Your task to perform on an android device: View the shopping cart on walmart.com. Search for acer predator on walmart.com, select the first entry, and add it to the cart. Image 0: 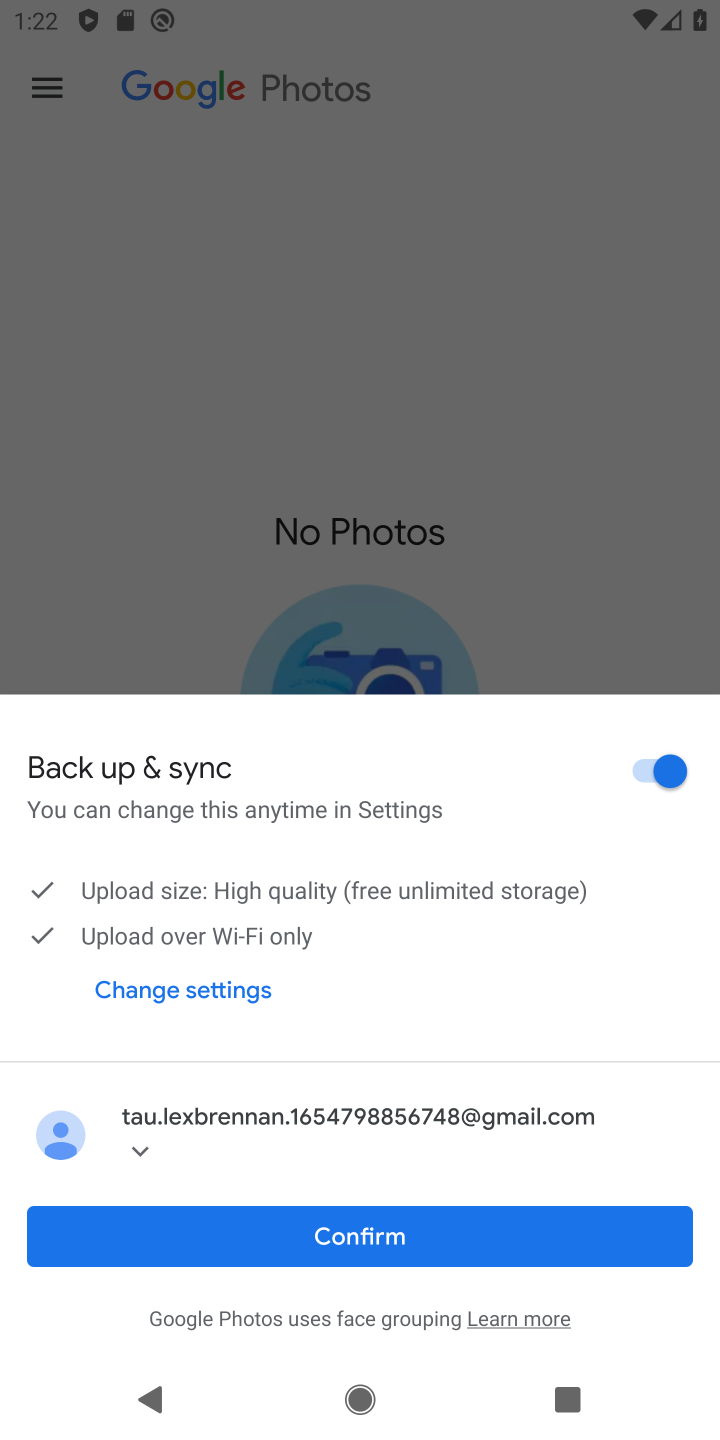
Step 0: press home button
Your task to perform on an android device: View the shopping cart on walmart.com. Search for acer predator on walmart.com, select the first entry, and add it to the cart. Image 1: 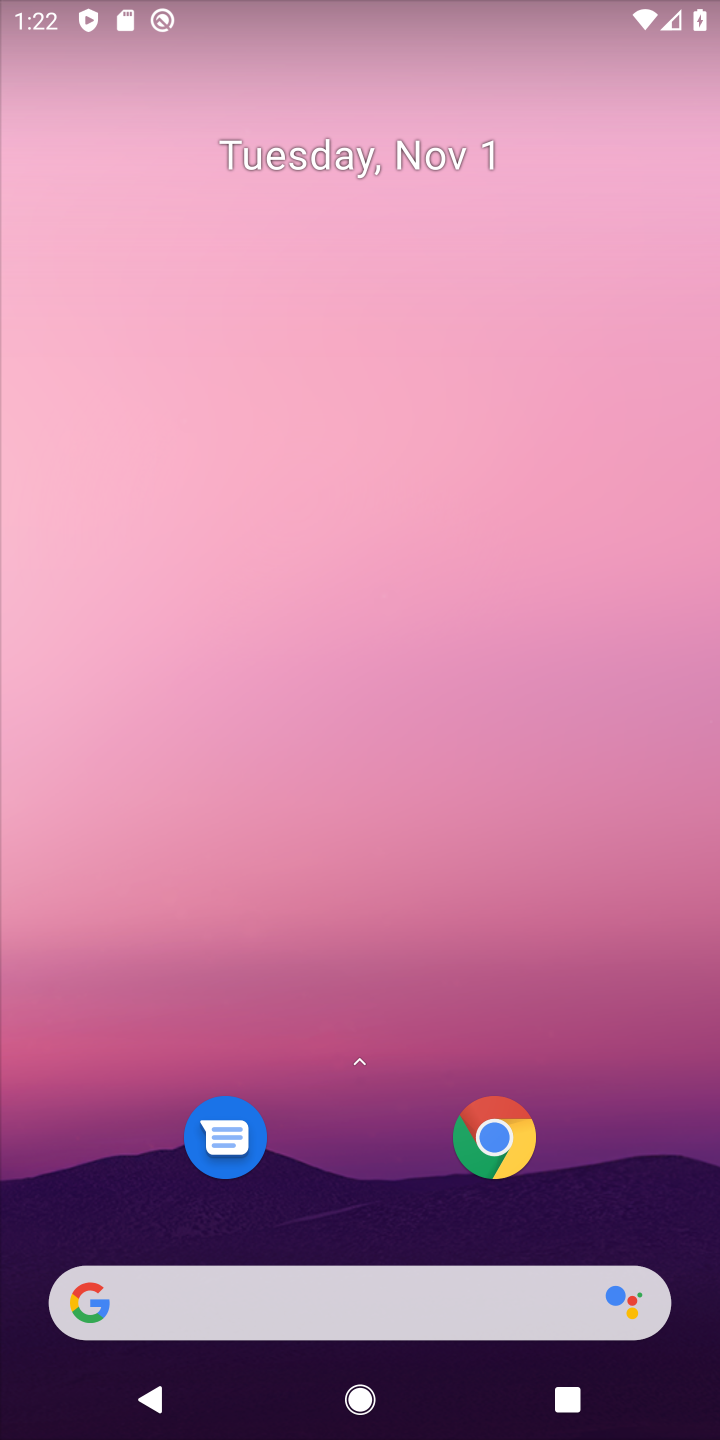
Step 1: click (354, 1293)
Your task to perform on an android device: View the shopping cart on walmart.com. Search for acer predator on walmart.com, select the first entry, and add it to the cart. Image 2: 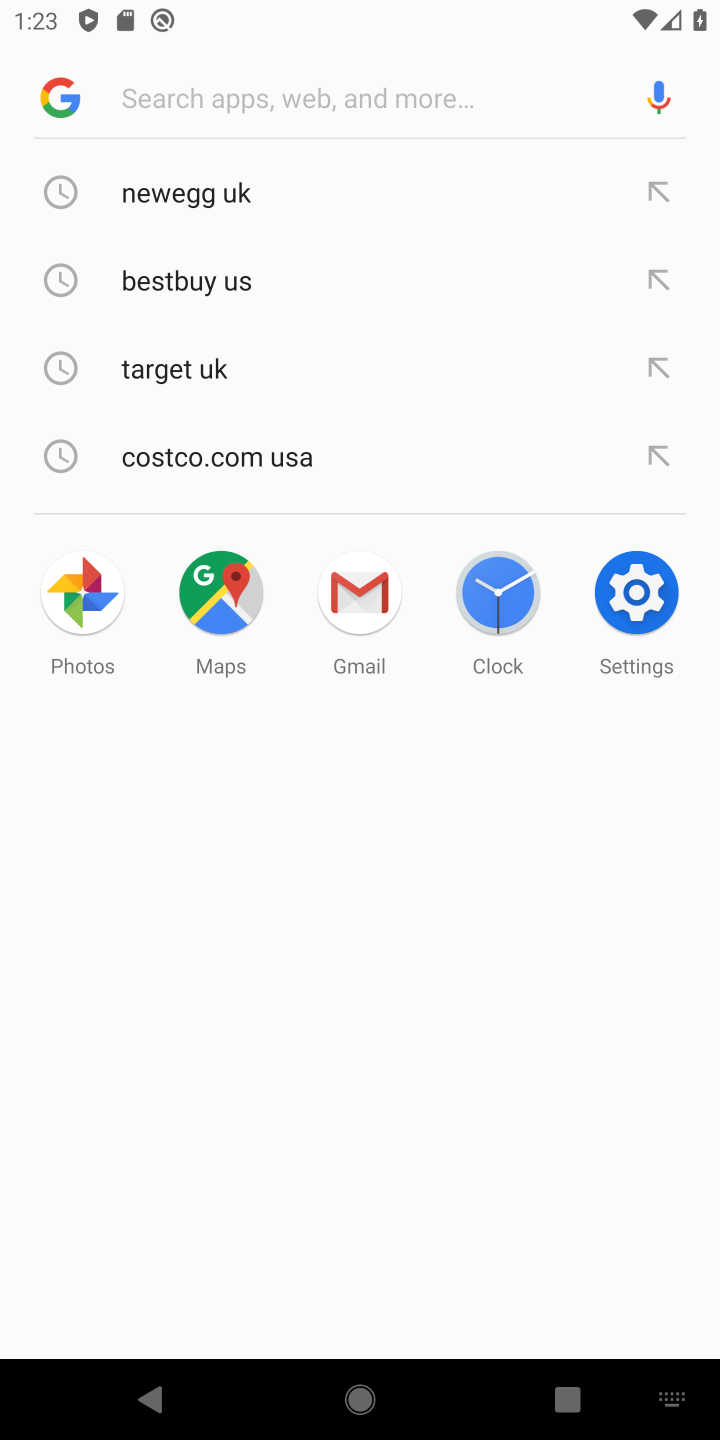
Step 2: type "walmart"
Your task to perform on an android device: View the shopping cart on walmart.com. Search for acer predator on walmart.com, select the first entry, and add it to the cart. Image 3: 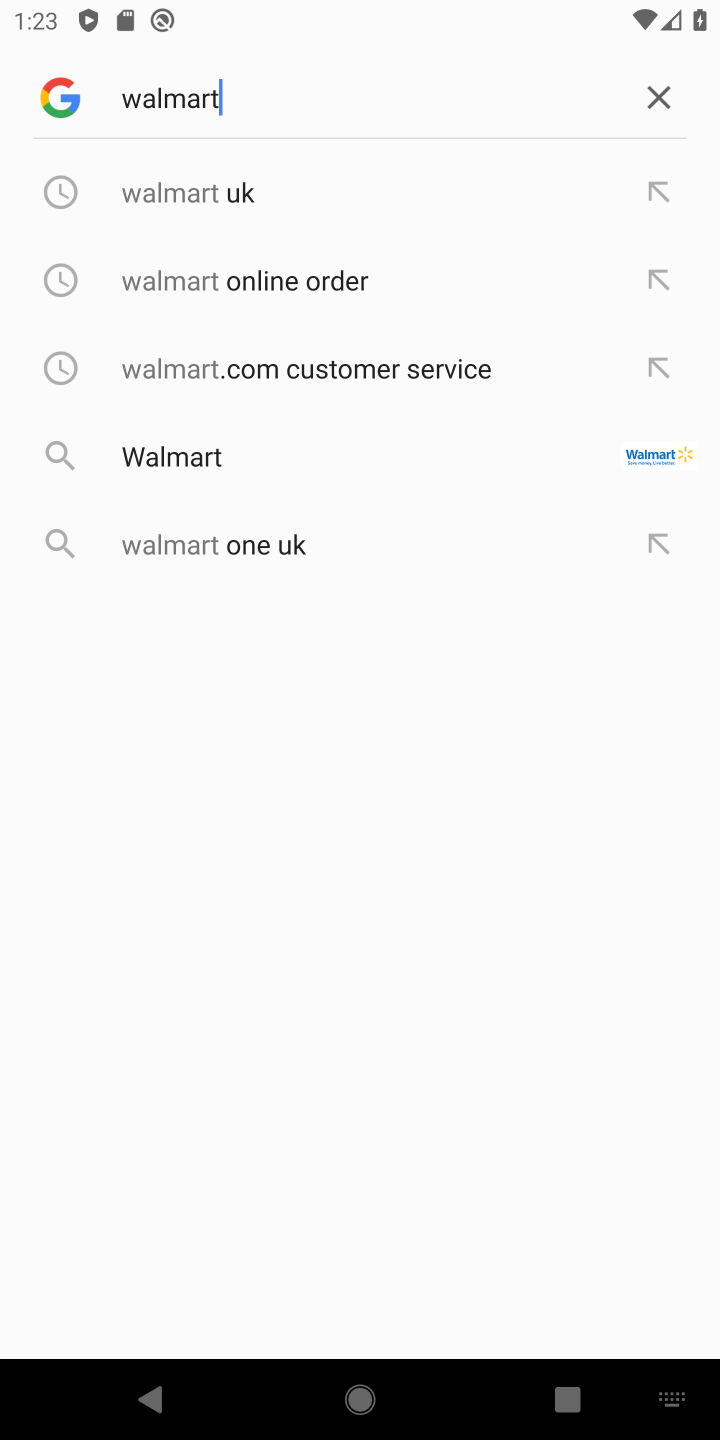
Step 3: click (345, 172)
Your task to perform on an android device: View the shopping cart on walmart.com. Search for acer predator on walmart.com, select the first entry, and add it to the cart. Image 4: 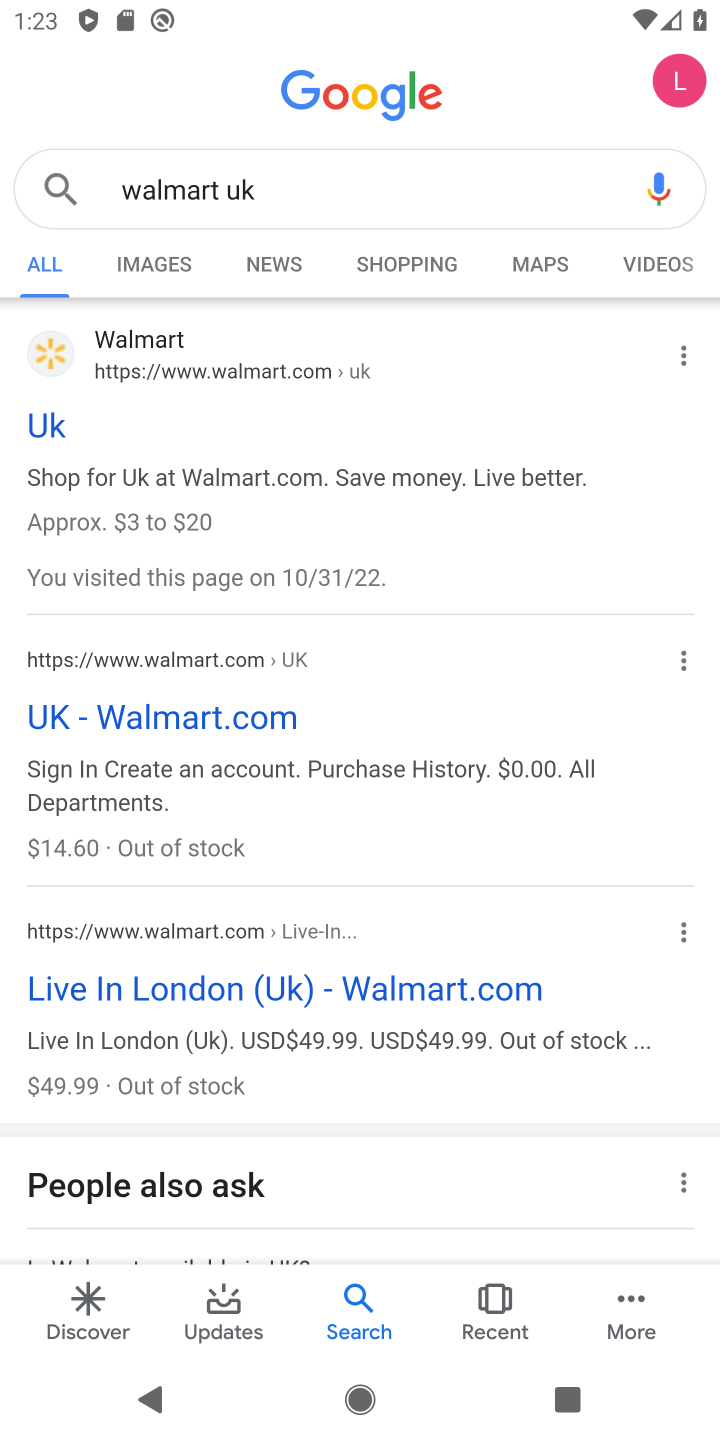
Step 4: click (72, 441)
Your task to perform on an android device: View the shopping cart on walmart.com. Search for acer predator on walmart.com, select the first entry, and add it to the cart. Image 5: 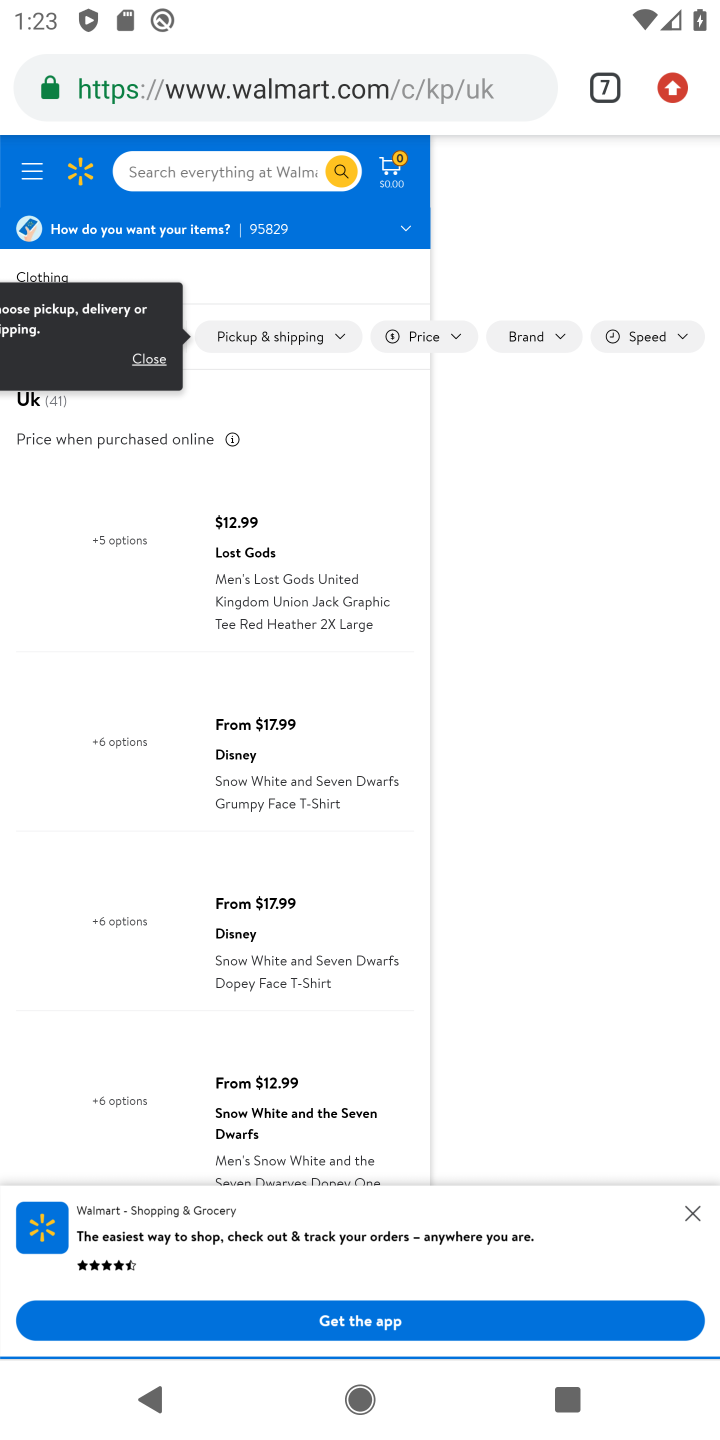
Step 5: click (259, 177)
Your task to perform on an android device: View the shopping cart on walmart.com. Search for acer predator on walmart.com, select the first entry, and add it to the cart. Image 6: 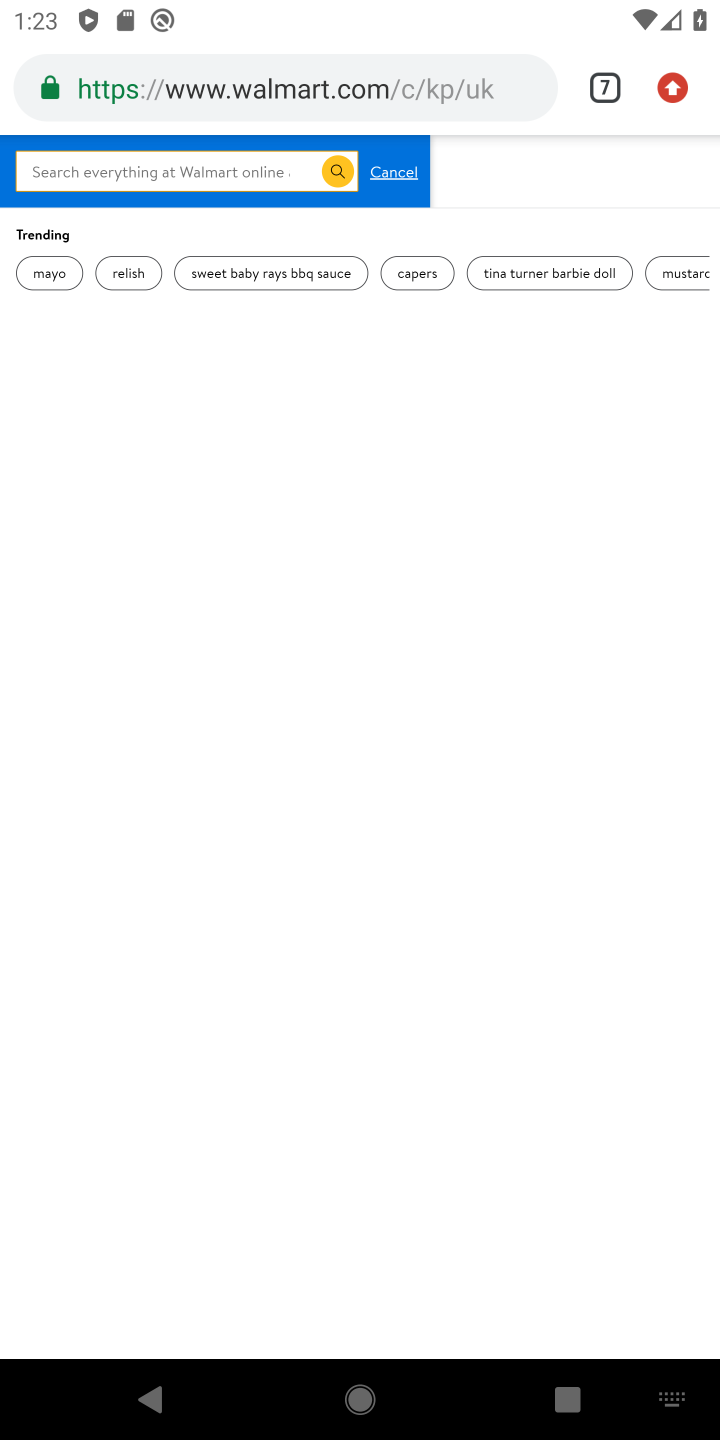
Step 6: type "acer predator"
Your task to perform on an android device: View the shopping cart on walmart.com. Search for acer predator on walmart.com, select the first entry, and add it to the cart. Image 7: 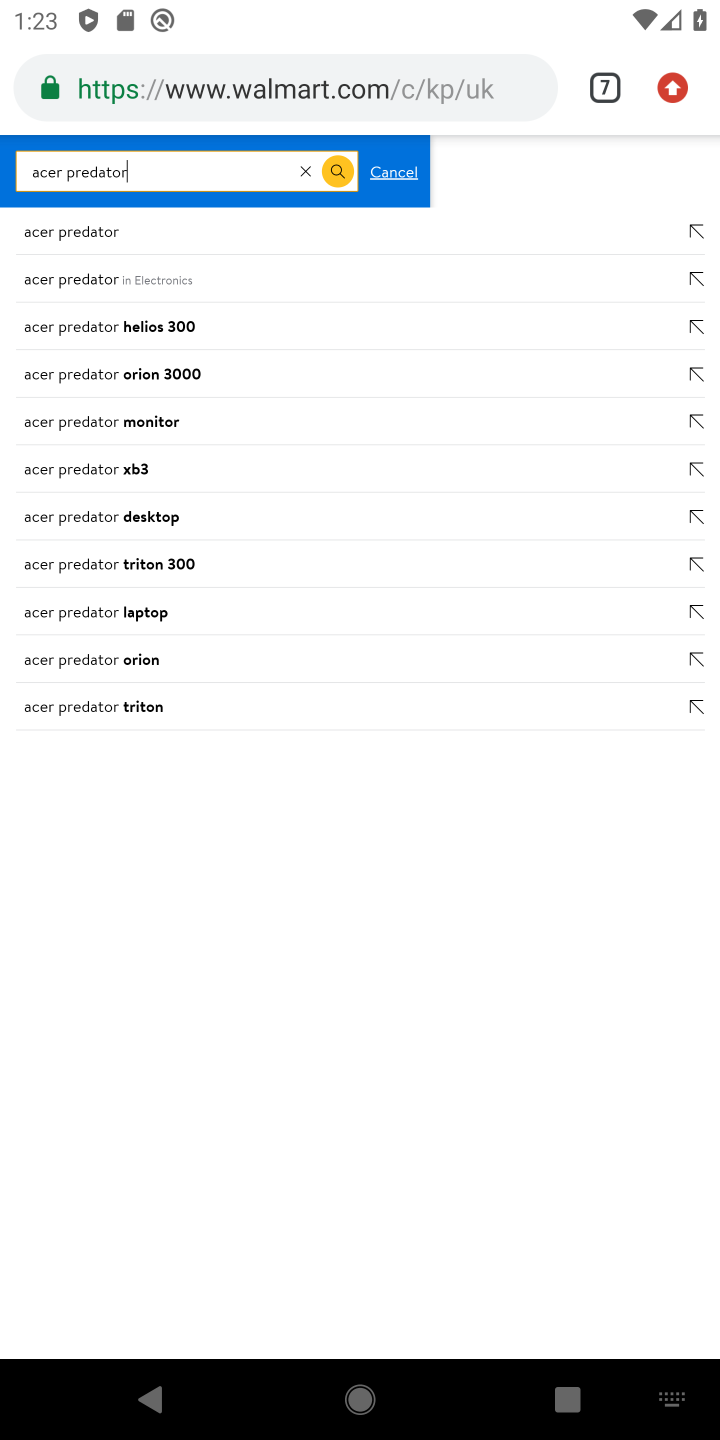
Step 7: click (331, 213)
Your task to perform on an android device: View the shopping cart on walmart.com. Search for acer predator on walmart.com, select the first entry, and add it to the cart. Image 8: 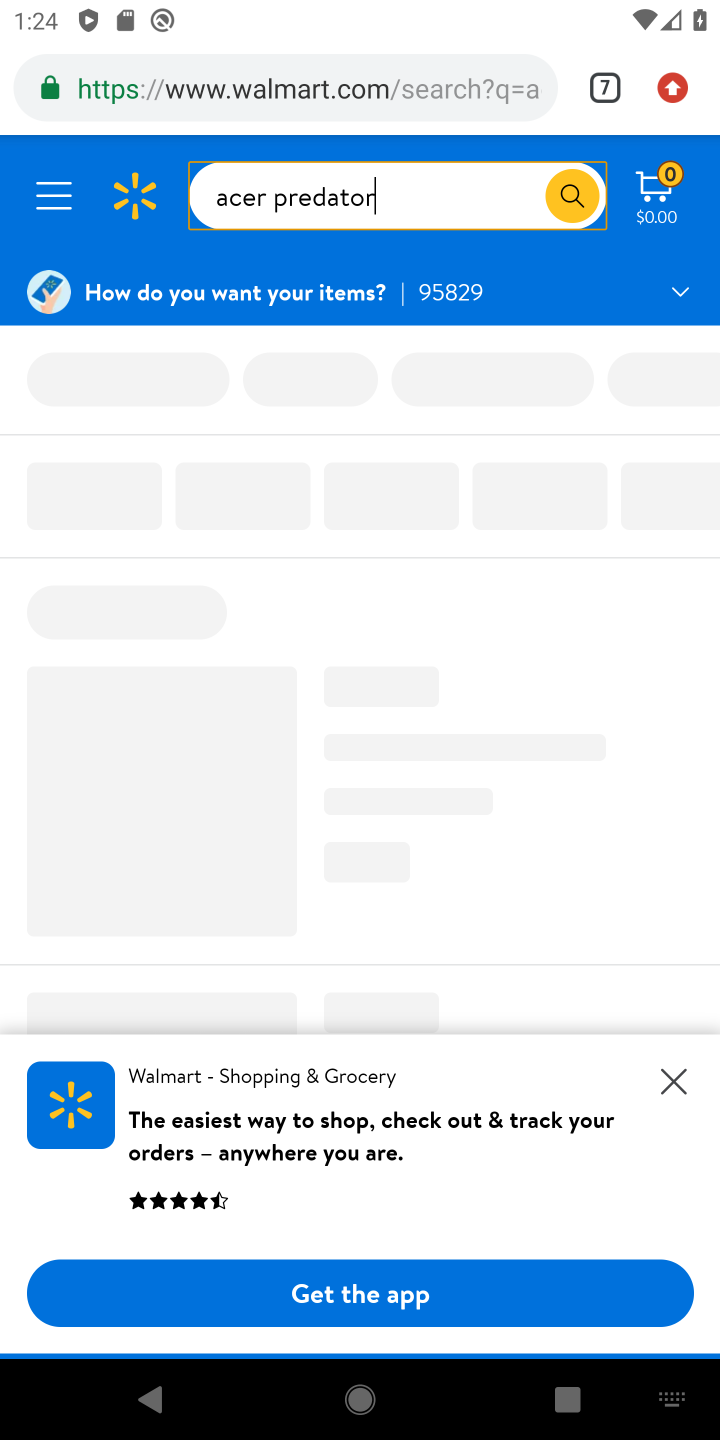
Step 8: click (660, 1081)
Your task to perform on an android device: View the shopping cart on walmart.com. Search for acer predator on walmart.com, select the first entry, and add it to the cart. Image 9: 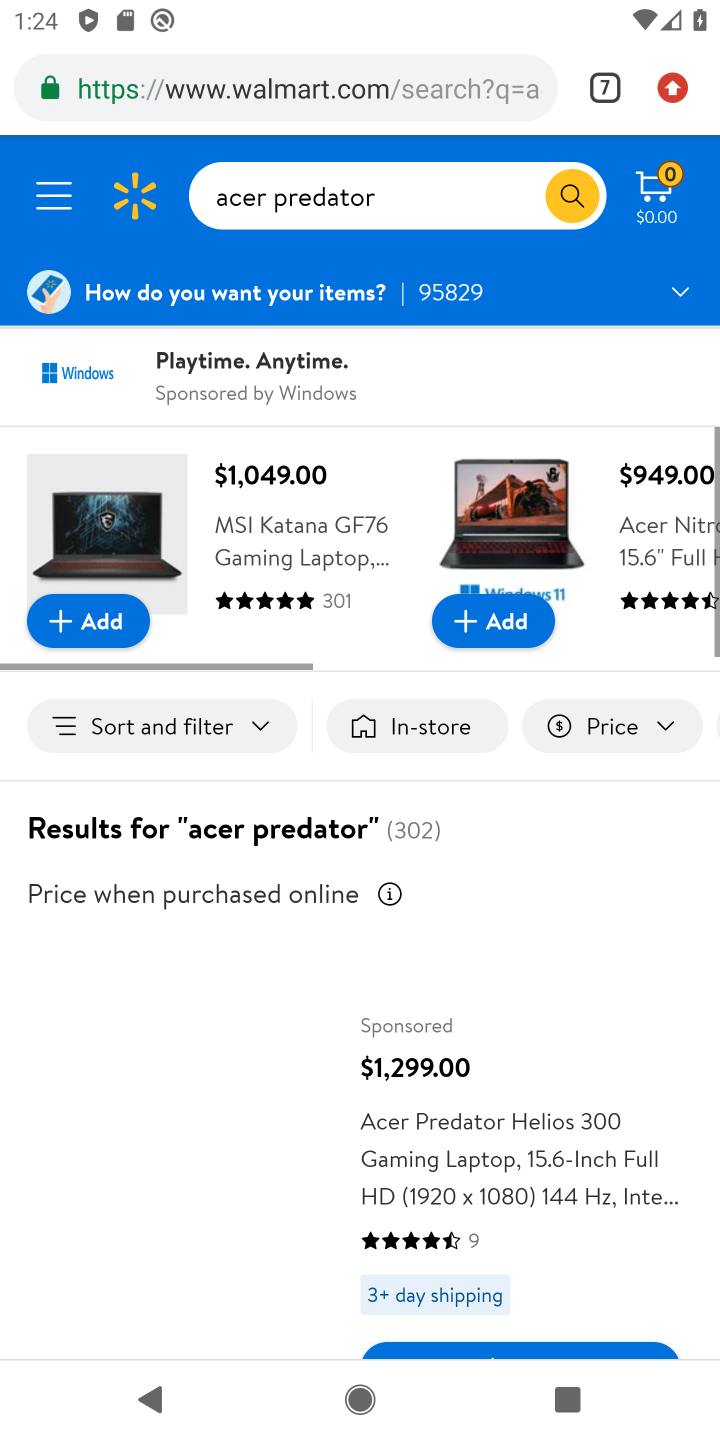
Step 9: click (679, 1072)
Your task to perform on an android device: View the shopping cart on walmart.com. Search for acer predator on walmart.com, select the first entry, and add it to the cart. Image 10: 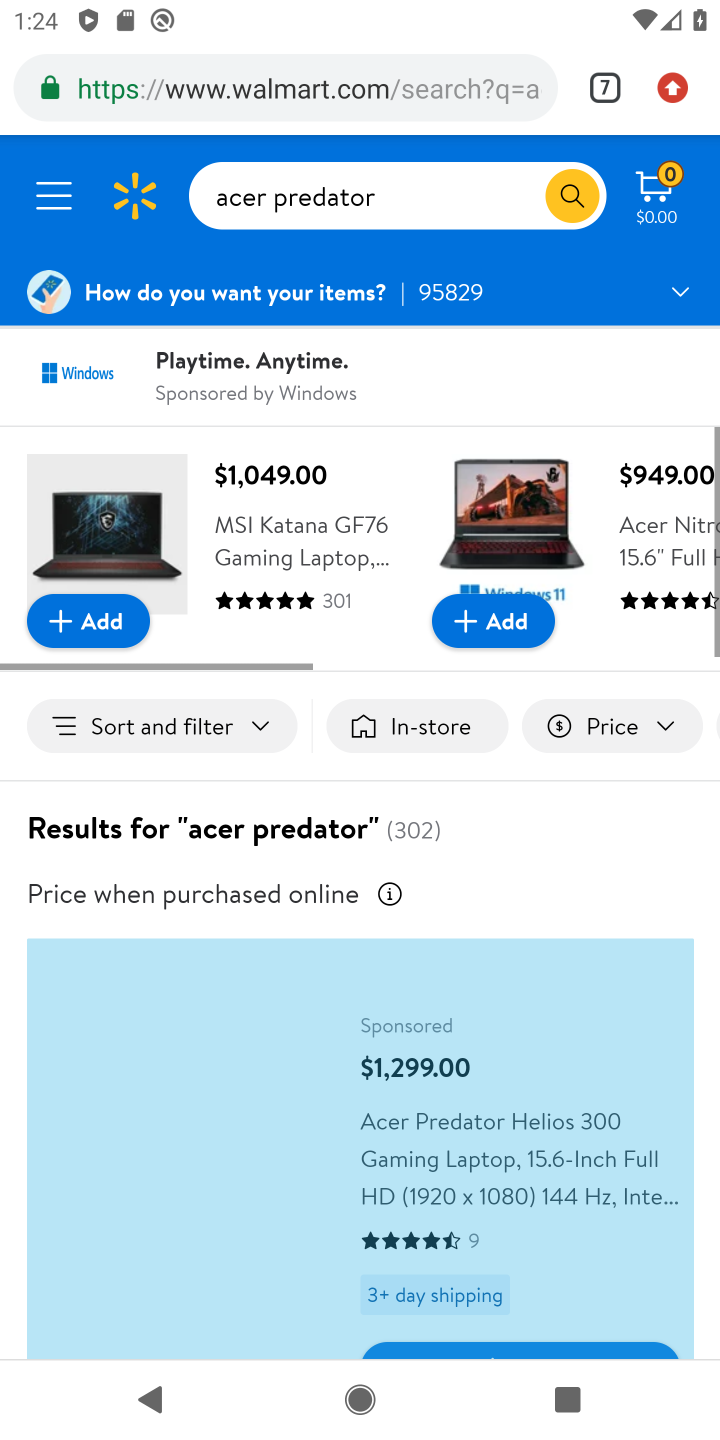
Step 10: drag from (599, 1039) to (564, 646)
Your task to perform on an android device: View the shopping cart on walmart.com. Search for acer predator on walmart.com, select the first entry, and add it to the cart. Image 11: 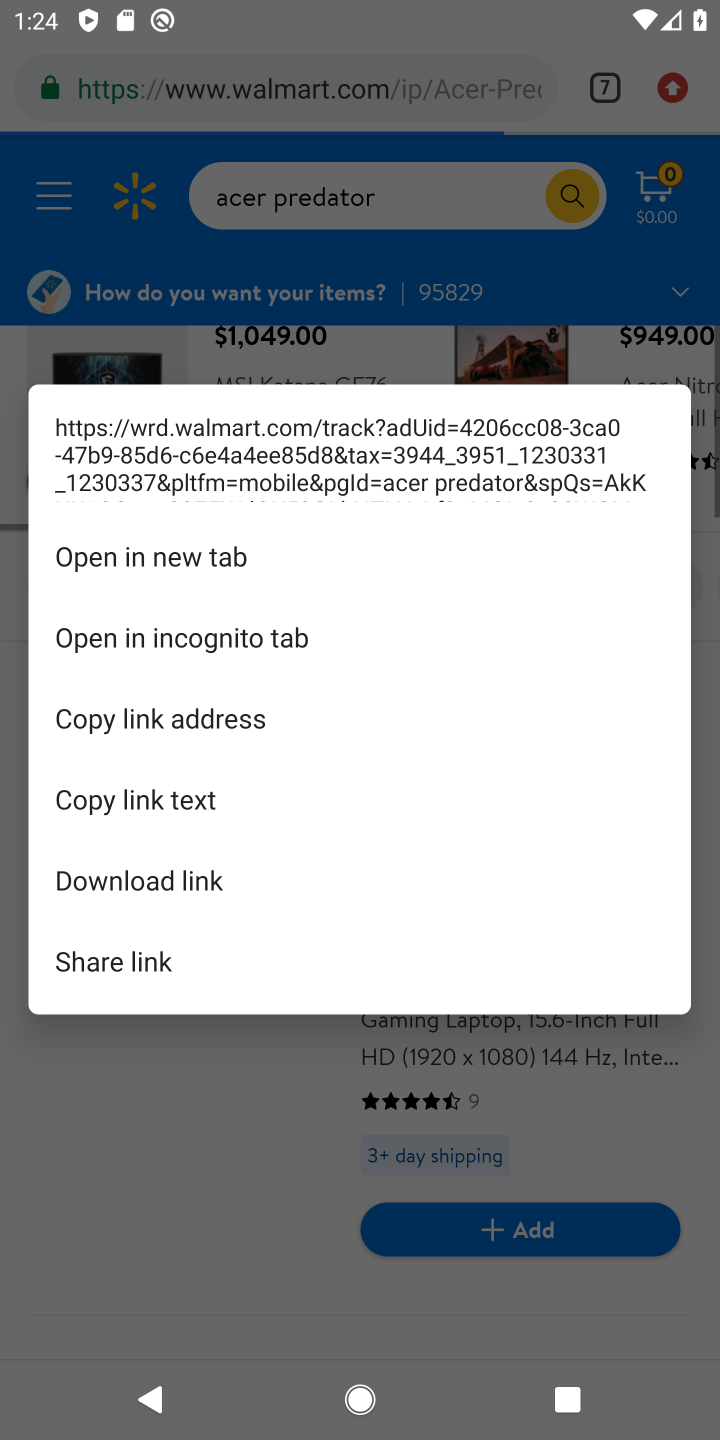
Step 11: click (599, 1185)
Your task to perform on an android device: View the shopping cart on walmart.com. Search for acer predator on walmart.com, select the first entry, and add it to the cart. Image 12: 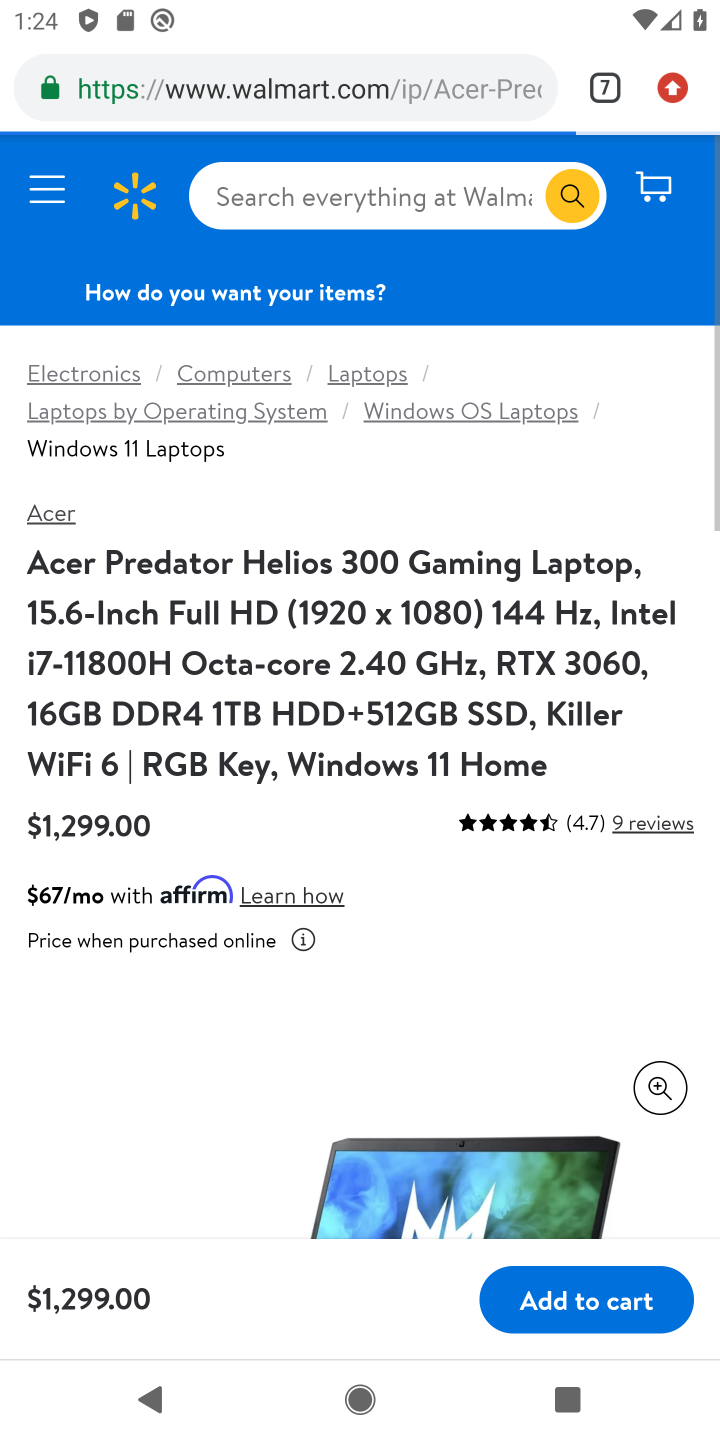
Step 12: click (599, 1208)
Your task to perform on an android device: View the shopping cart on walmart.com. Search for acer predator on walmart.com, select the first entry, and add it to the cart. Image 13: 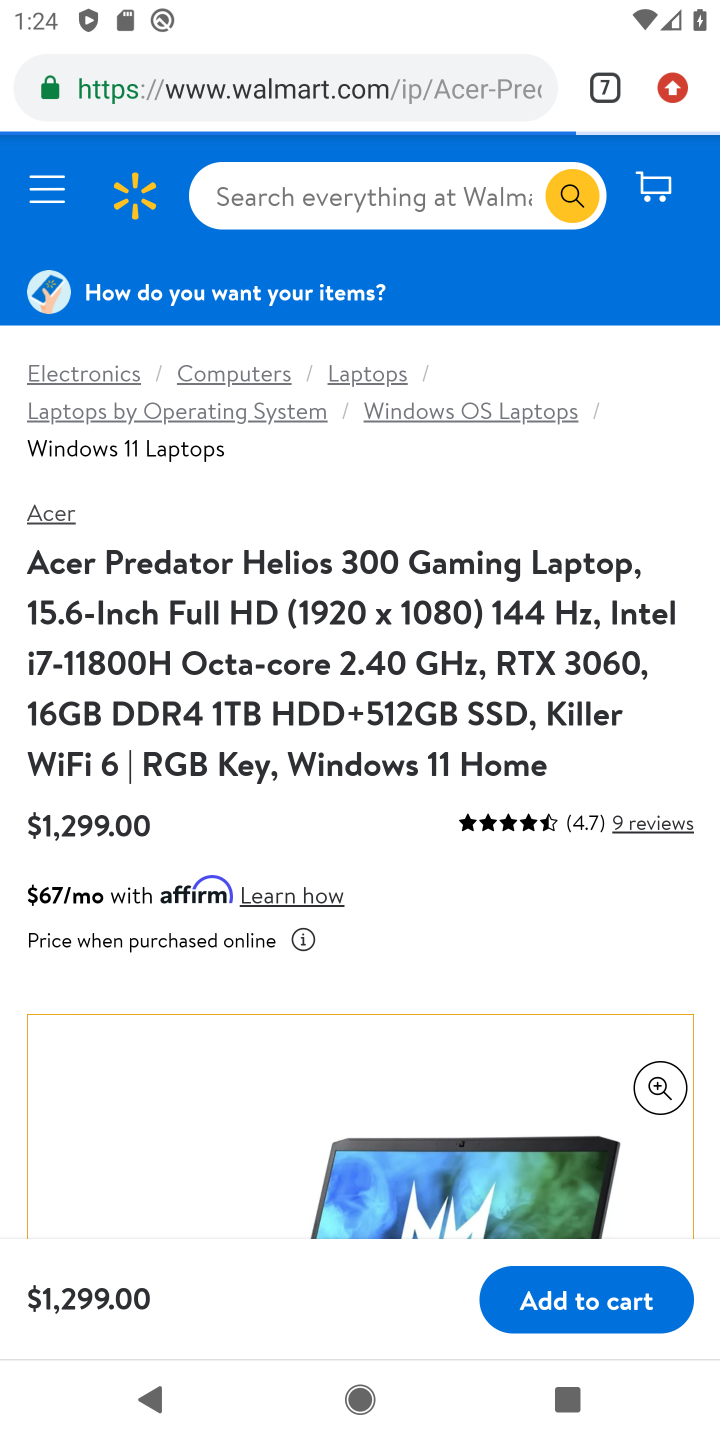
Step 13: click (605, 1273)
Your task to perform on an android device: View the shopping cart on walmart.com. Search for acer predator on walmart.com, select the first entry, and add it to the cart. Image 14: 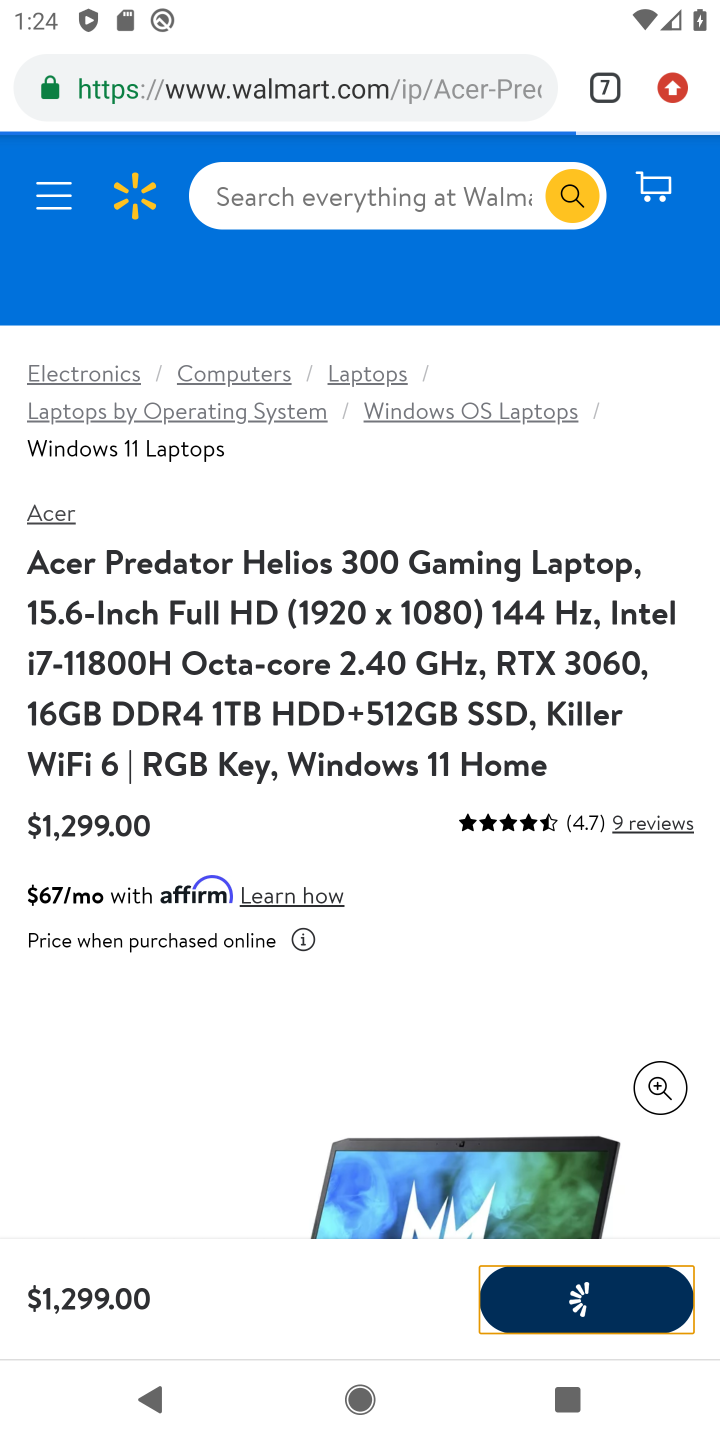
Step 14: click (626, 1288)
Your task to perform on an android device: View the shopping cart on walmart.com. Search for acer predator on walmart.com, select the first entry, and add it to the cart. Image 15: 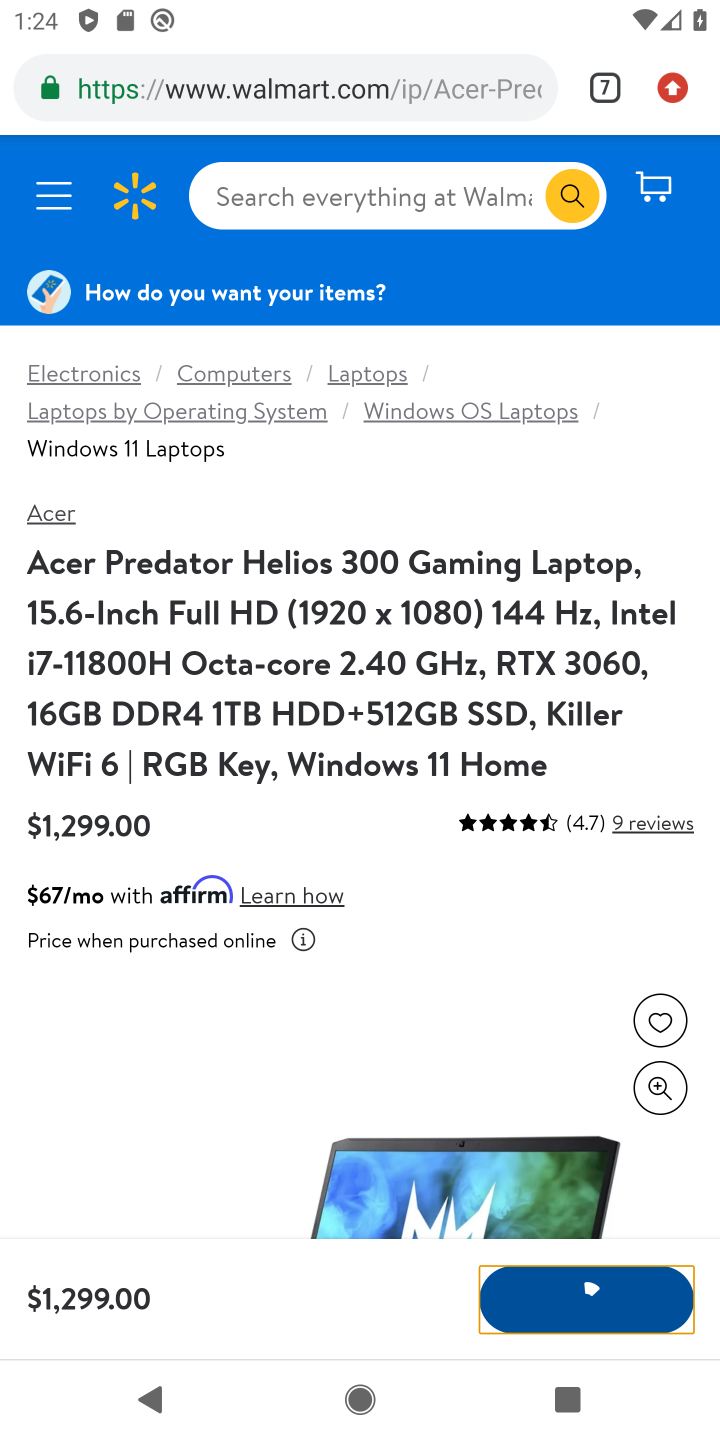
Step 15: task complete